Your task to perform on an android device: delete a single message in the gmail app Image 0: 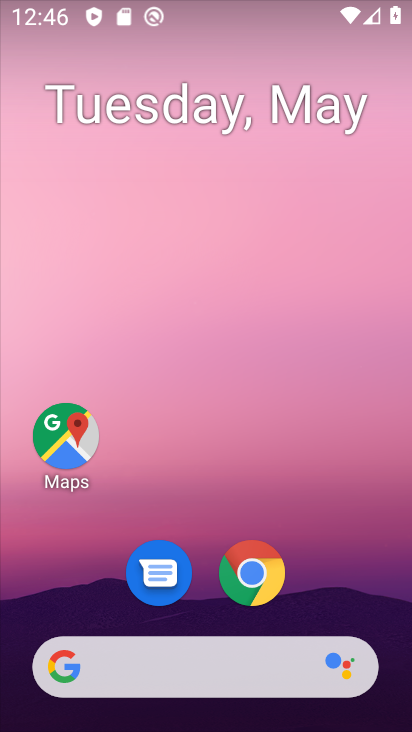
Step 0: drag from (346, 459) to (308, 107)
Your task to perform on an android device: delete a single message in the gmail app Image 1: 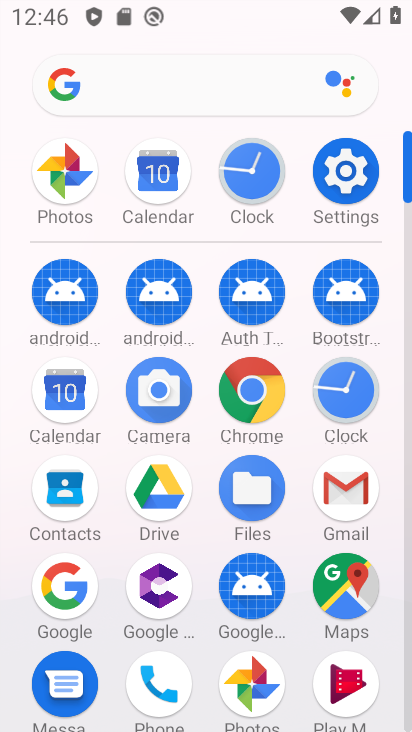
Step 1: click (340, 459)
Your task to perform on an android device: delete a single message in the gmail app Image 2: 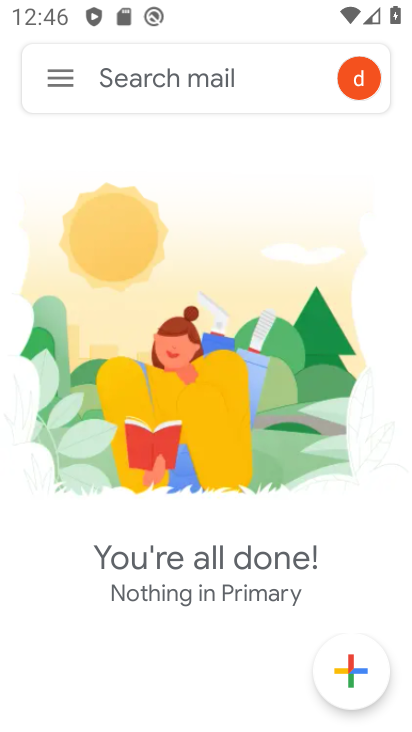
Step 2: click (80, 78)
Your task to perform on an android device: delete a single message in the gmail app Image 3: 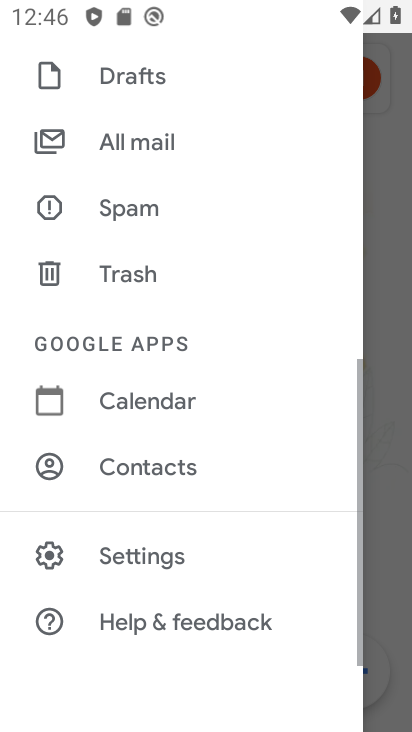
Step 3: drag from (100, 108) to (142, 537)
Your task to perform on an android device: delete a single message in the gmail app Image 4: 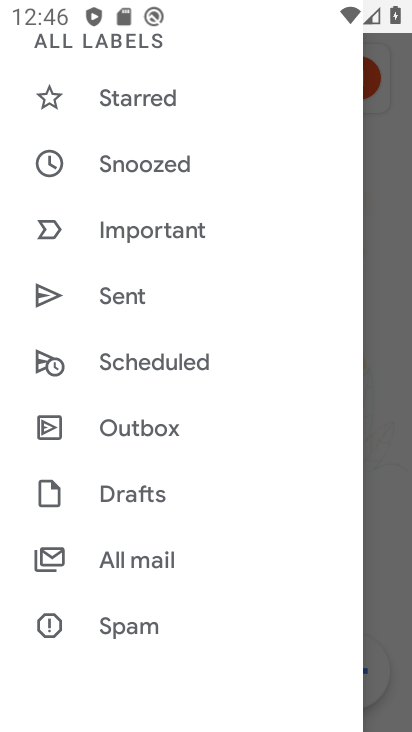
Step 4: drag from (179, 184) to (182, 537)
Your task to perform on an android device: delete a single message in the gmail app Image 5: 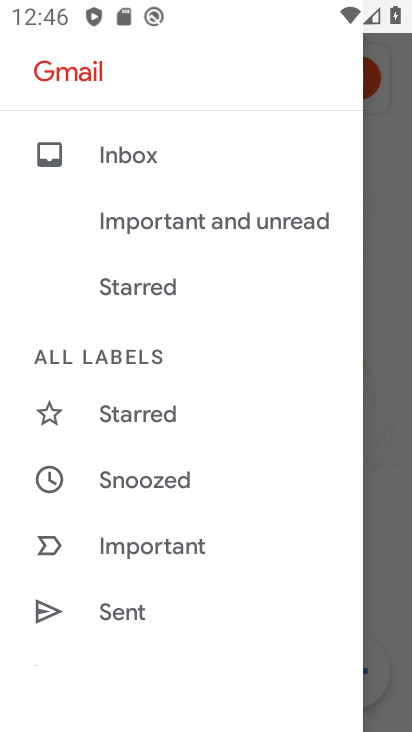
Step 5: click (109, 147)
Your task to perform on an android device: delete a single message in the gmail app Image 6: 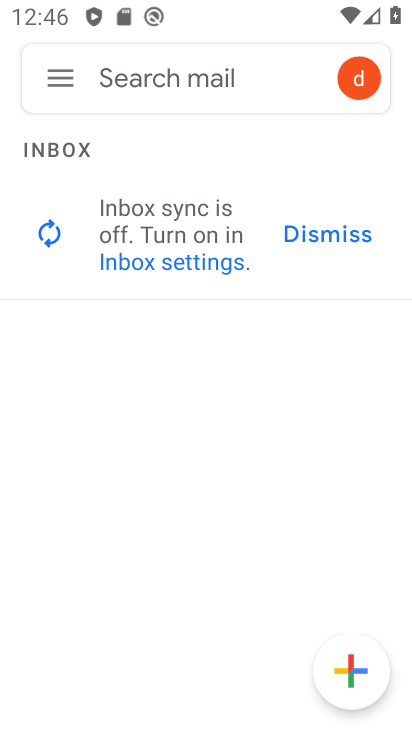
Step 6: task complete